Your task to perform on an android device: Open Amazon Image 0: 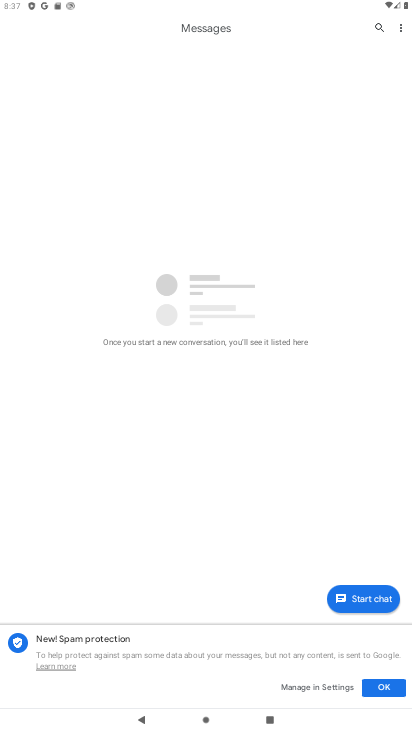
Step 0: press home button
Your task to perform on an android device: Open Amazon Image 1: 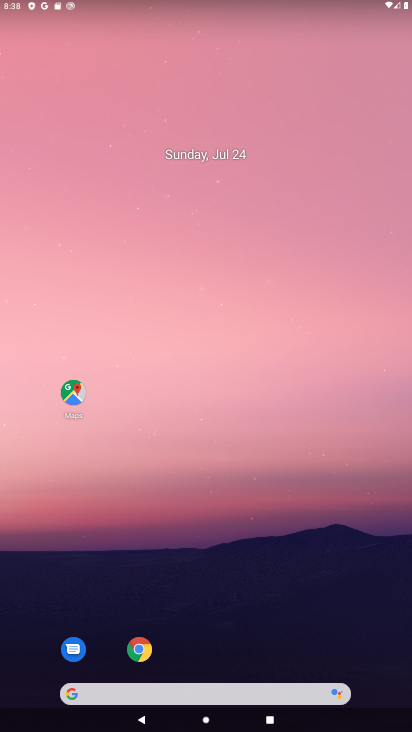
Step 1: click (146, 655)
Your task to perform on an android device: Open Amazon Image 2: 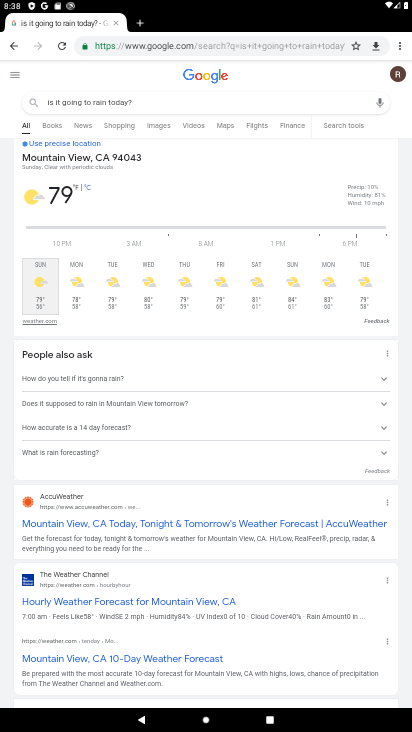
Step 2: click (142, 24)
Your task to perform on an android device: Open Amazon Image 3: 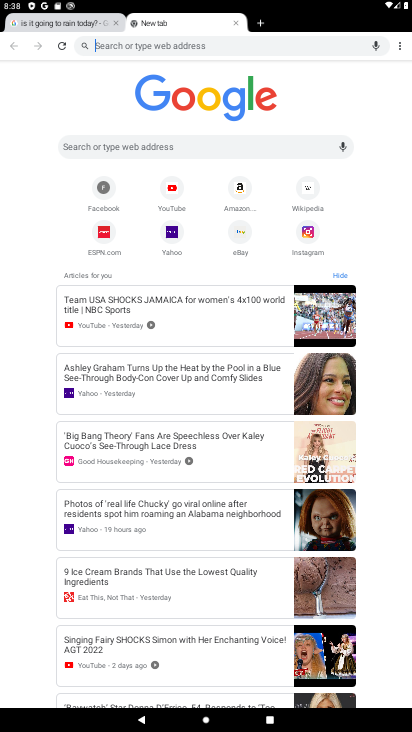
Step 3: click (244, 189)
Your task to perform on an android device: Open Amazon Image 4: 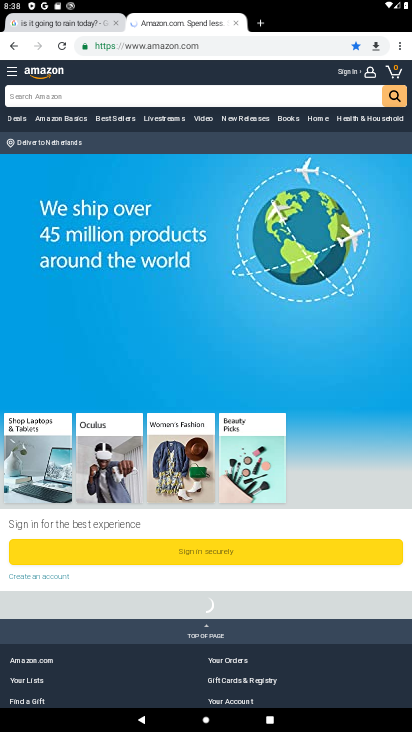
Step 4: task complete